Your task to perform on an android device: Go to Amazon Image 0: 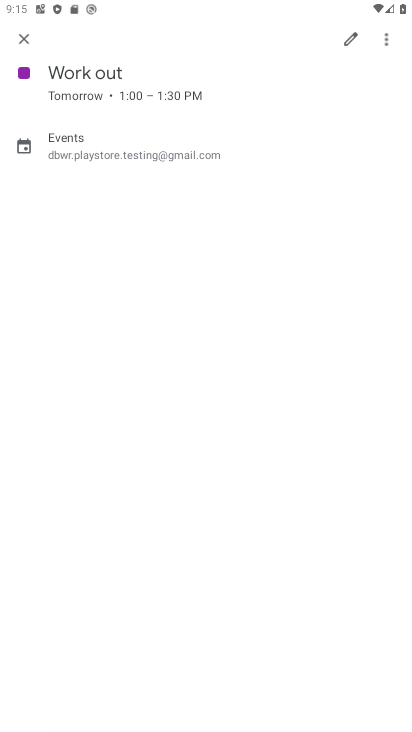
Step 0: drag from (180, 647) to (268, 273)
Your task to perform on an android device: Go to Amazon Image 1: 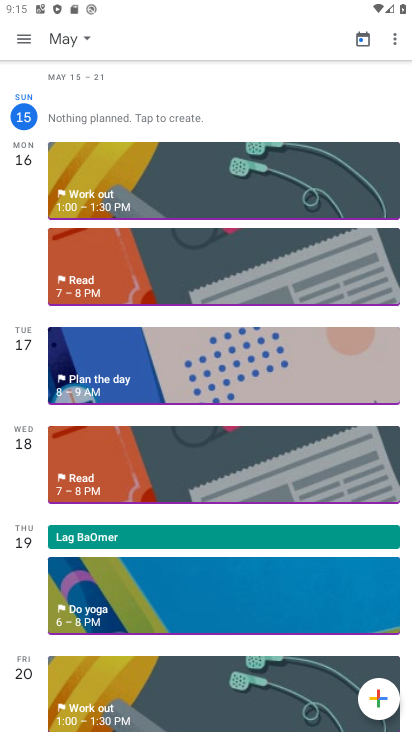
Step 1: press home button
Your task to perform on an android device: Go to Amazon Image 2: 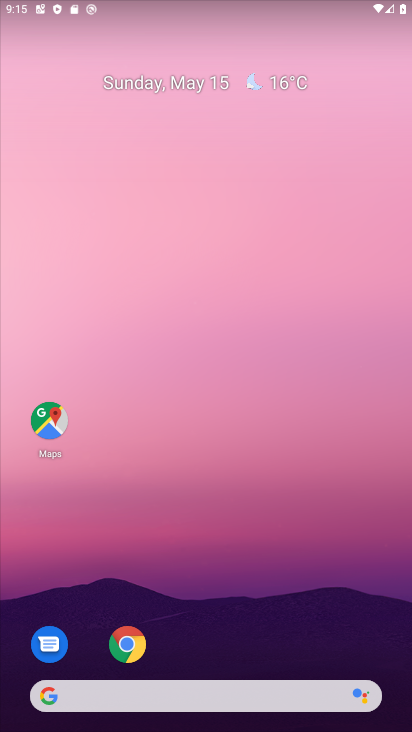
Step 2: click (130, 646)
Your task to perform on an android device: Go to Amazon Image 3: 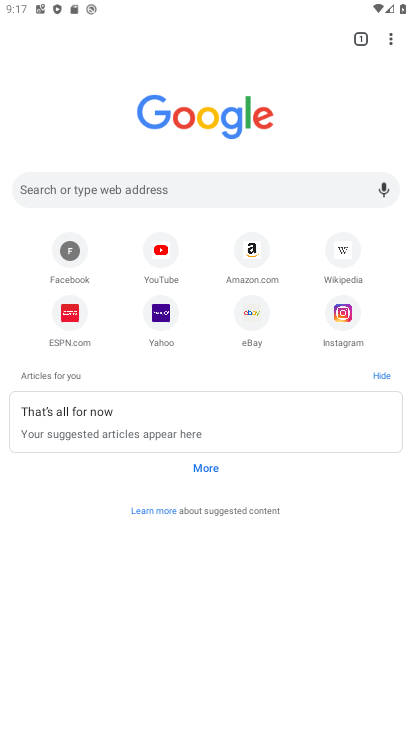
Step 3: click (260, 252)
Your task to perform on an android device: Go to Amazon Image 4: 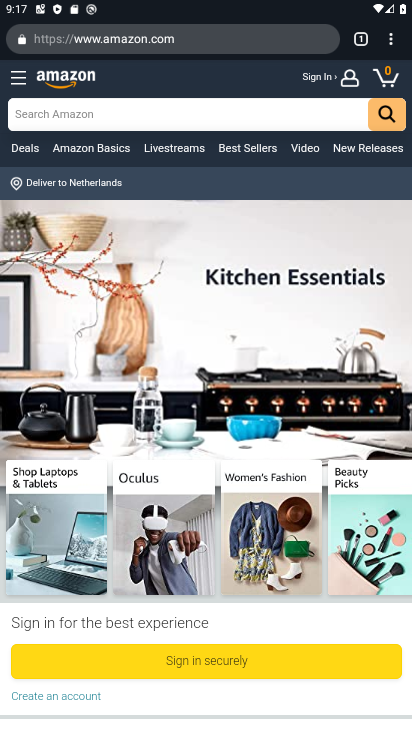
Step 4: task complete